Your task to perform on an android device: move an email to a new category in the gmail app Image 0: 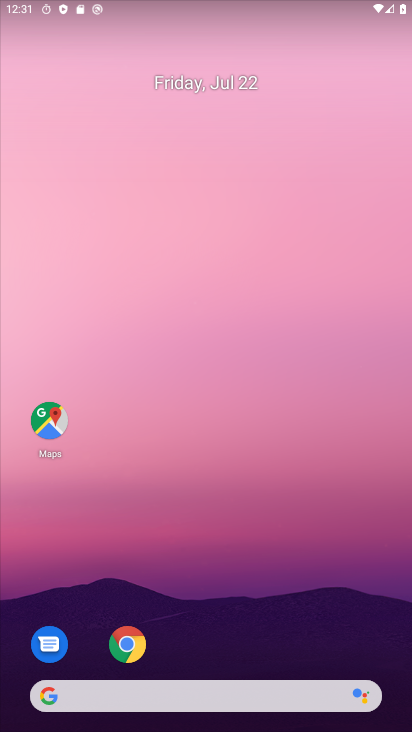
Step 0: drag from (243, 605) to (254, 114)
Your task to perform on an android device: move an email to a new category in the gmail app Image 1: 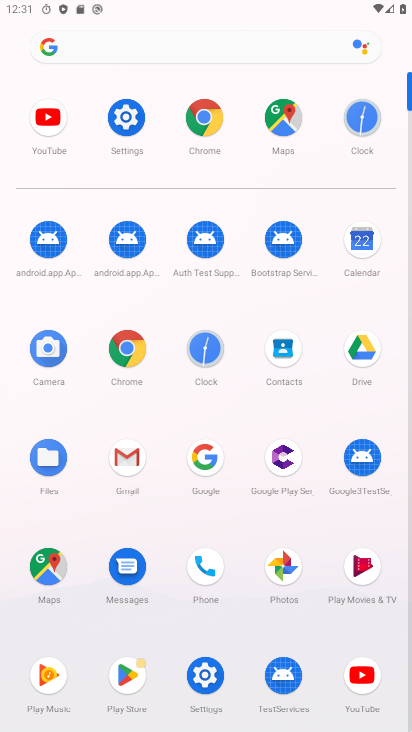
Step 1: click (132, 473)
Your task to perform on an android device: move an email to a new category in the gmail app Image 2: 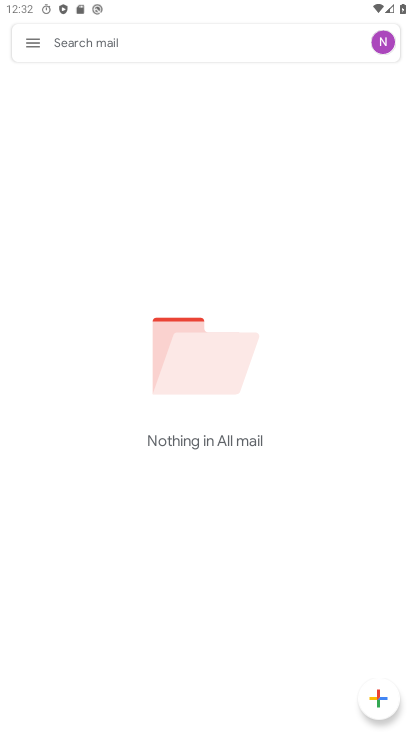
Step 2: task complete